Your task to perform on an android device: turn off airplane mode Image 0: 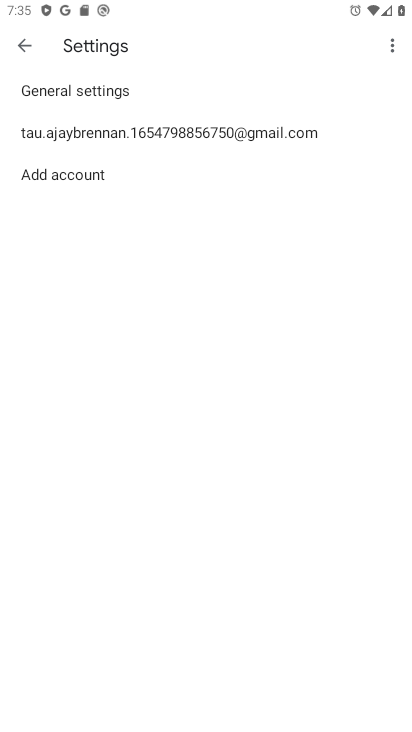
Step 0: press home button
Your task to perform on an android device: turn off airplane mode Image 1: 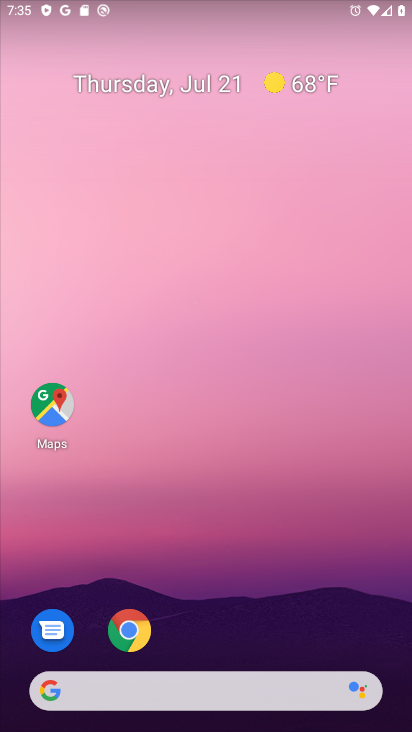
Step 1: drag from (245, 342) to (255, 24)
Your task to perform on an android device: turn off airplane mode Image 2: 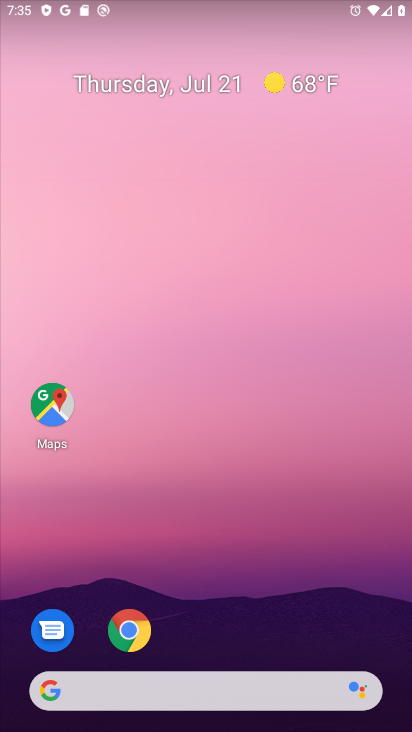
Step 2: drag from (182, 111) to (88, 37)
Your task to perform on an android device: turn off airplane mode Image 3: 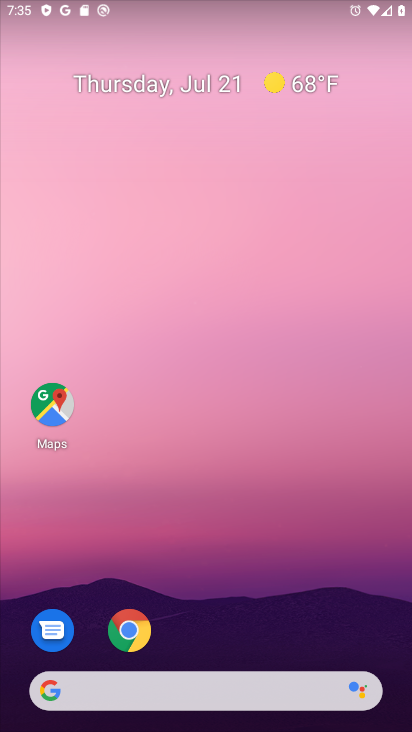
Step 3: drag from (226, 590) to (189, 83)
Your task to perform on an android device: turn off airplane mode Image 4: 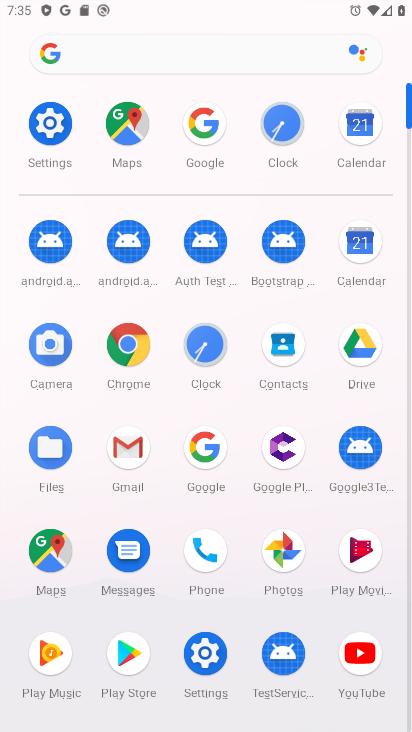
Step 4: click (39, 116)
Your task to perform on an android device: turn off airplane mode Image 5: 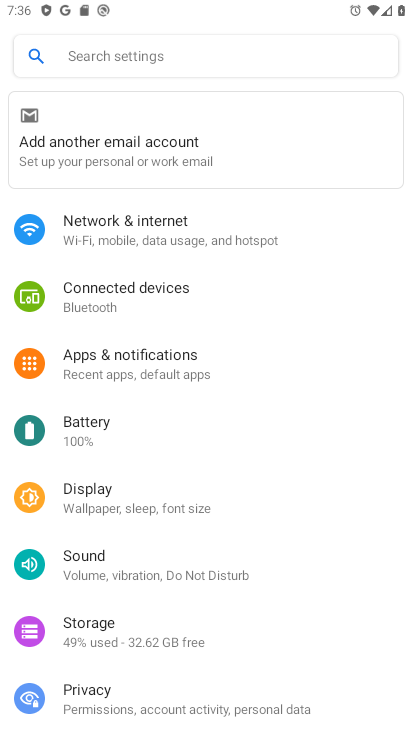
Step 5: click (121, 216)
Your task to perform on an android device: turn off airplane mode Image 6: 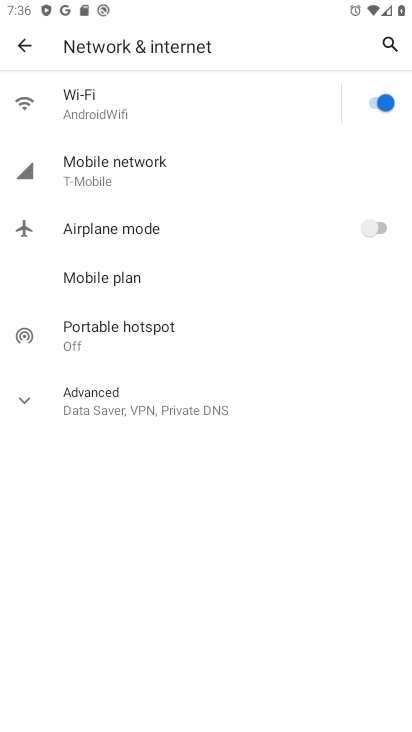
Step 6: task complete